Your task to perform on an android device: change notifications settings Image 0: 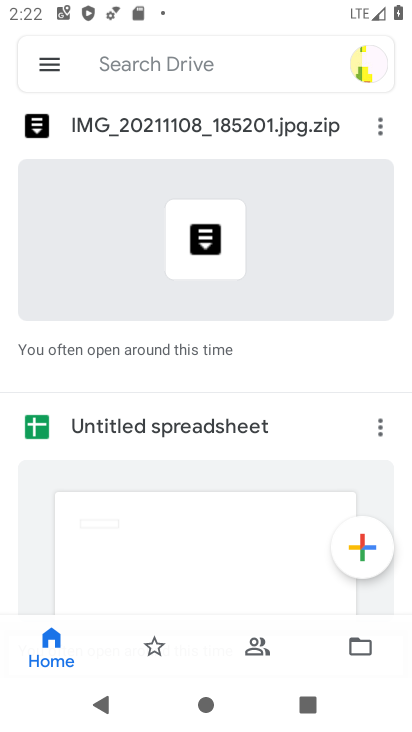
Step 0: press home button
Your task to perform on an android device: change notifications settings Image 1: 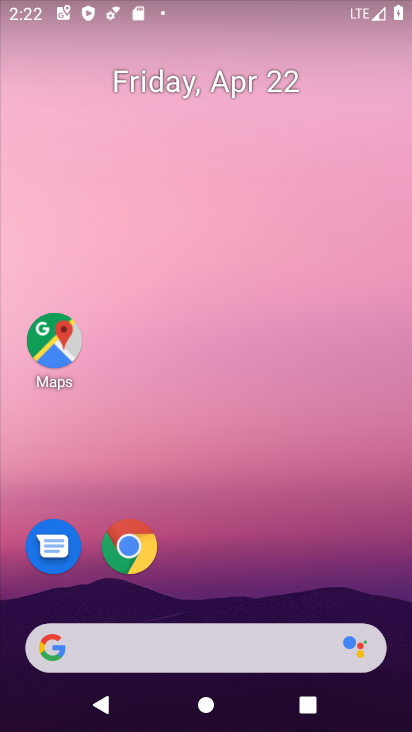
Step 1: drag from (207, 634) to (263, 271)
Your task to perform on an android device: change notifications settings Image 2: 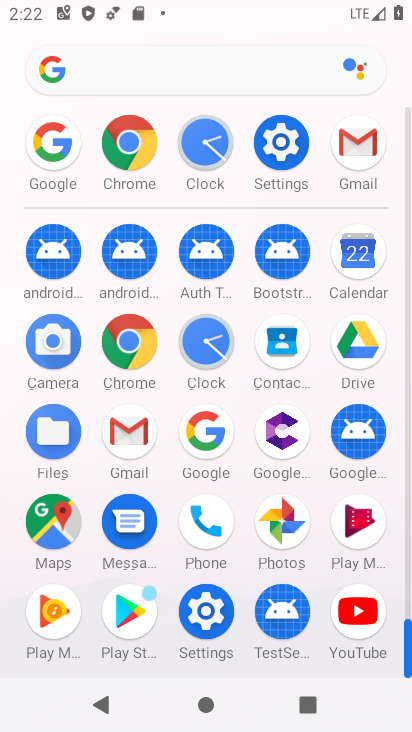
Step 2: click (294, 165)
Your task to perform on an android device: change notifications settings Image 3: 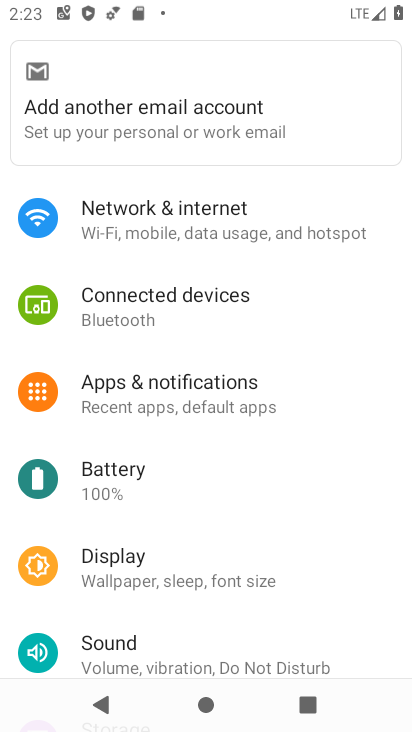
Step 3: click (223, 389)
Your task to perform on an android device: change notifications settings Image 4: 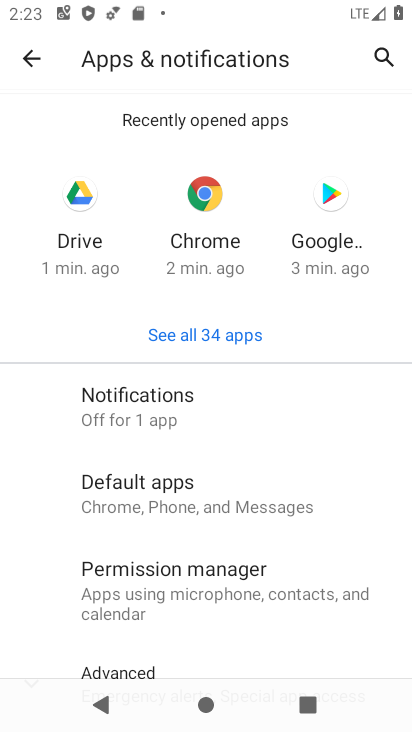
Step 4: drag from (225, 494) to (254, 332)
Your task to perform on an android device: change notifications settings Image 5: 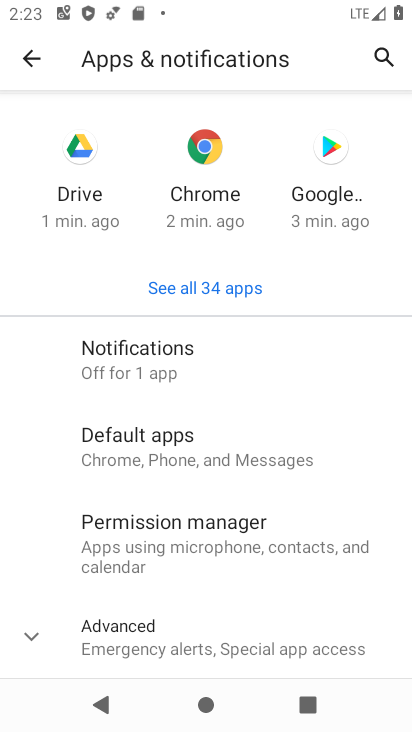
Step 5: drag from (242, 342) to (253, 310)
Your task to perform on an android device: change notifications settings Image 6: 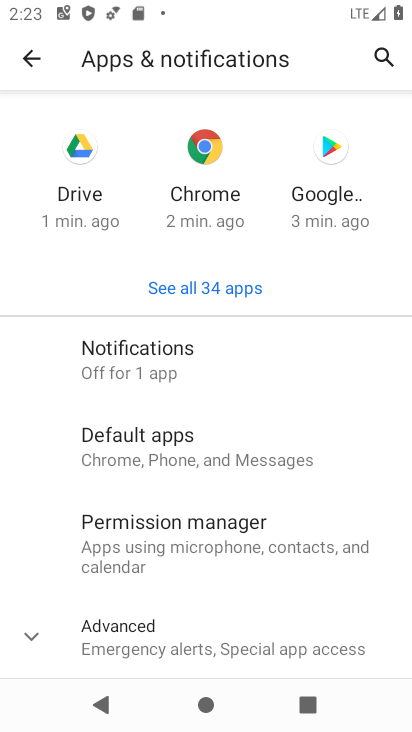
Step 6: click (236, 363)
Your task to perform on an android device: change notifications settings Image 7: 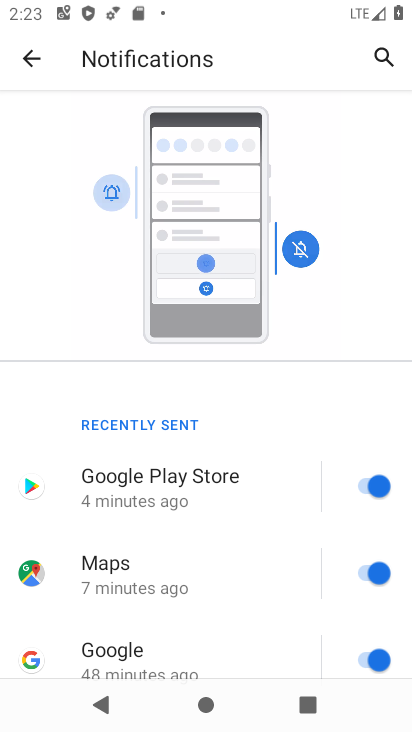
Step 7: click (370, 493)
Your task to perform on an android device: change notifications settings Image 8: 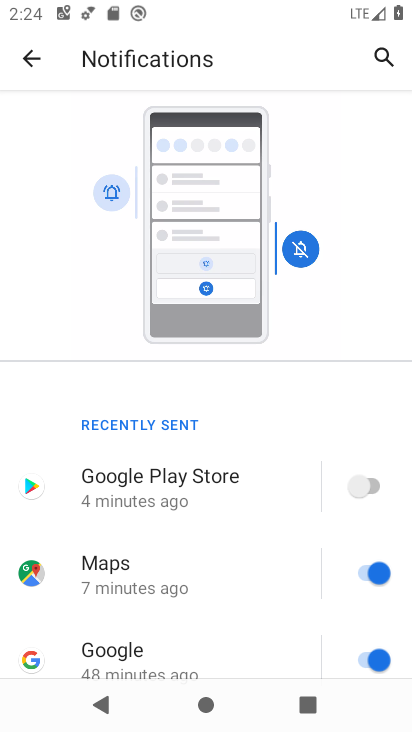
Step 8: task complete